Your task to perform on an android device: Open accessibility settings Image 0: 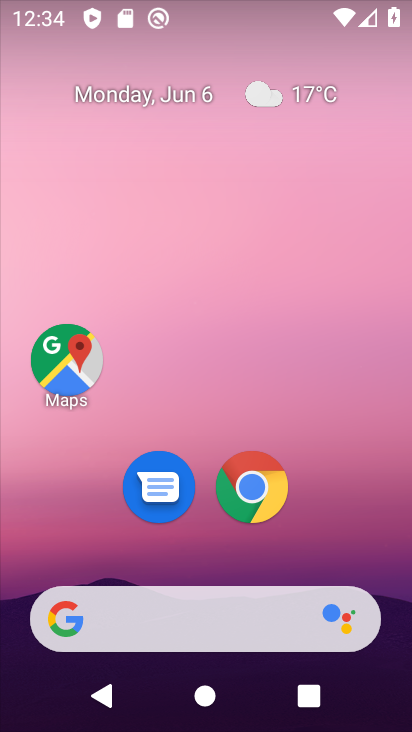
Step 0: drag from (193, 546) to (257, 8)
Your task to perform on an android device: Open accessibility settings Image 1: 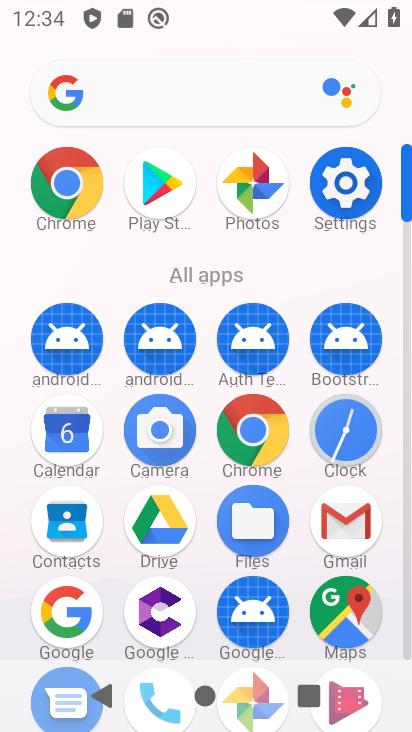
Step 1: click (344, 177)
Your task to perform on an android device: Open accessibility settings Image 2: 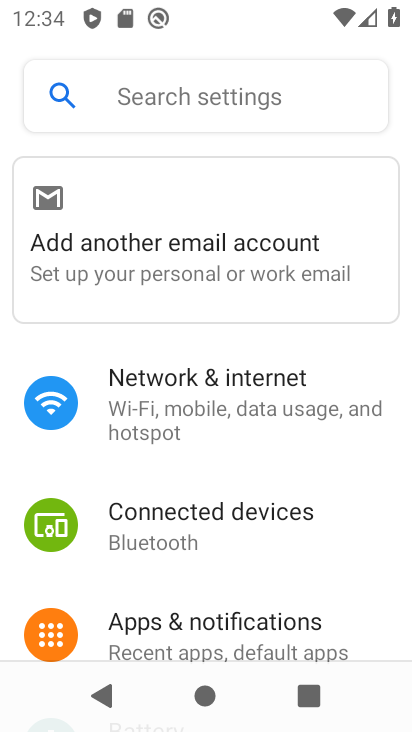
Step 2: drag from (171, 591) to (245, 78)
Your task to perform on an android device: Open accessibility settings Image 3: 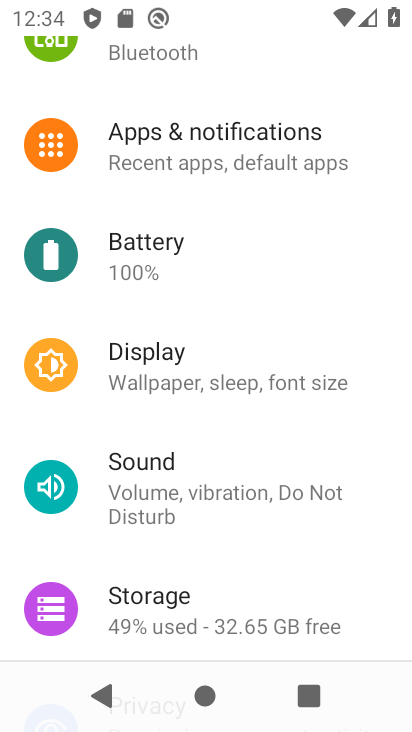
Step 3: drag from (195, 557) to (303, 32)
Your task to perform on an android device: Open accessibility settings Image 4: 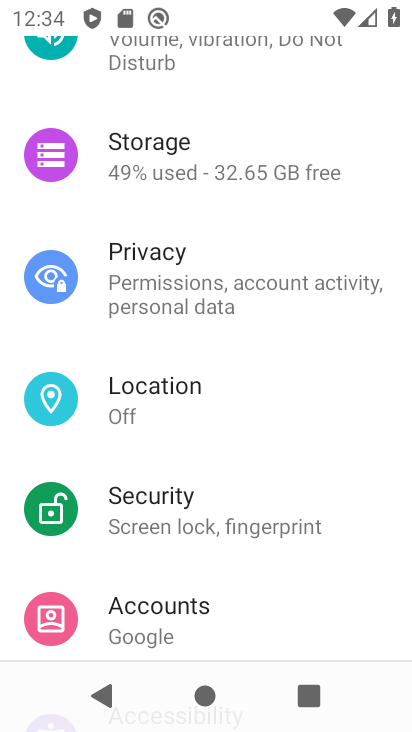
Step 4: drag from (203, 632) to (301, 95)
Your task to perform on an android device: Open accessibility settings Image 5: 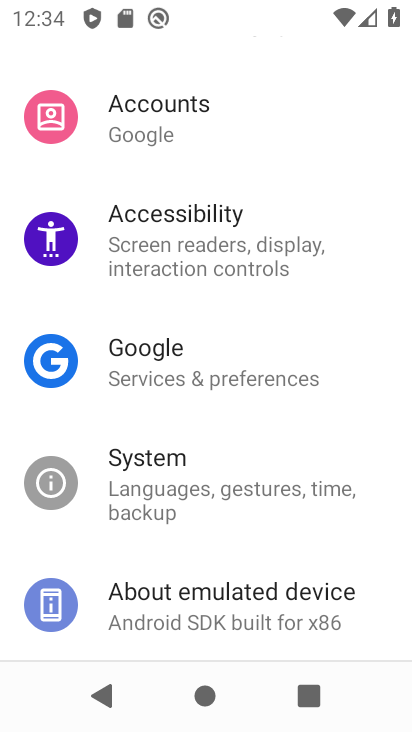
Step 5: click (188, 218)
Your task to perform on an android device: Open accessibility settings Image 6: 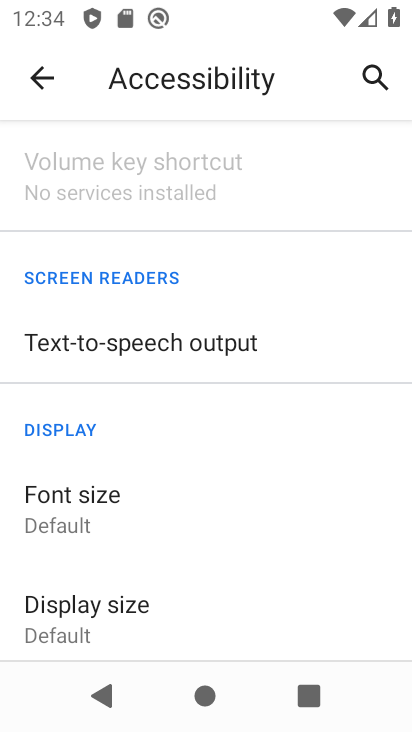
Step 6: task complete